Your task to perform on an android device: open chrome privacy settings Image 0: 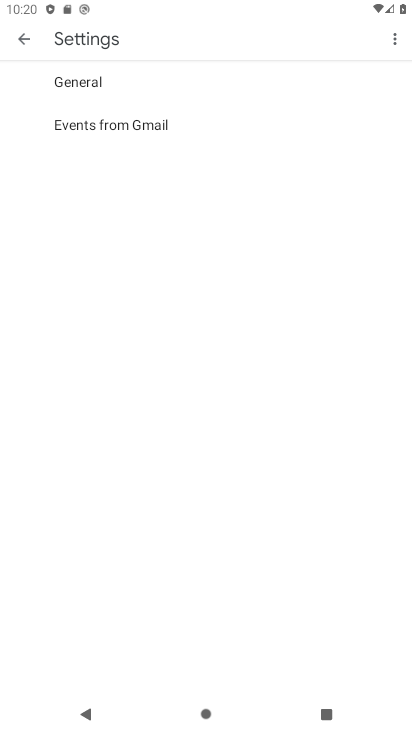
Step 0: press home button
Your task to perform on an android device: open chrome privacy settings Image 1: 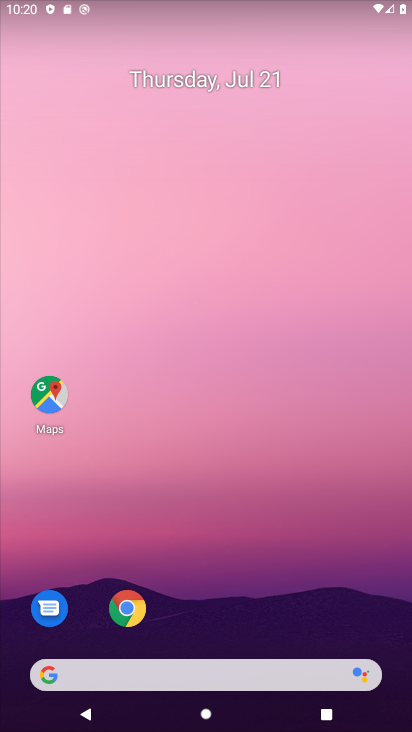
Step 1: click (141, 619)
Your task to perform on an android device: open chrome privacy settings Image 2: 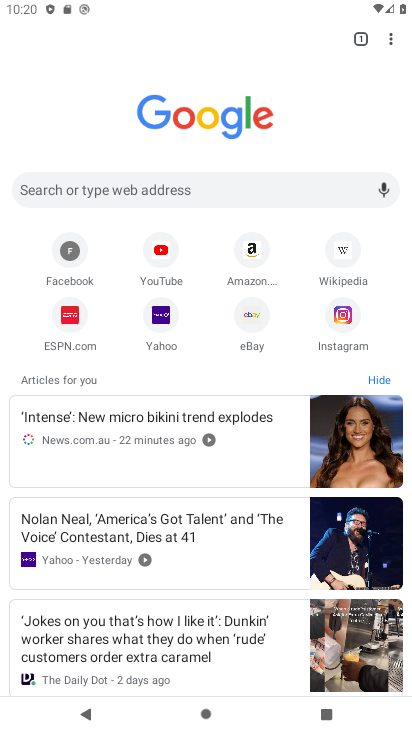
Step 2: click (382, 45)
Your task to perform on an android device: open chrome privacy settings Image 3: 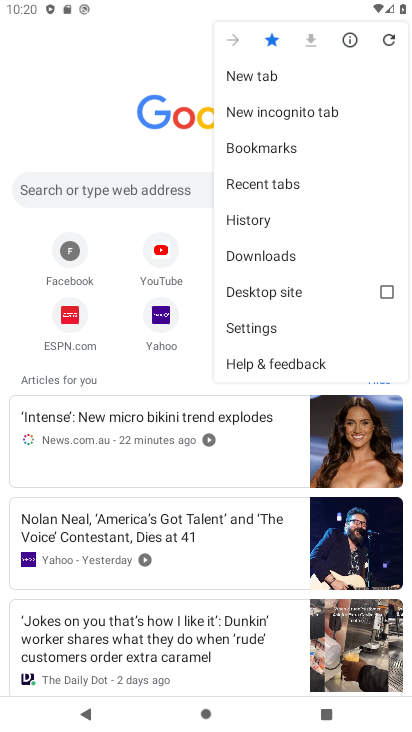
Step 3: click (268, 333)
Your task to perform on an android device: open chrome privacy settings Image 4: 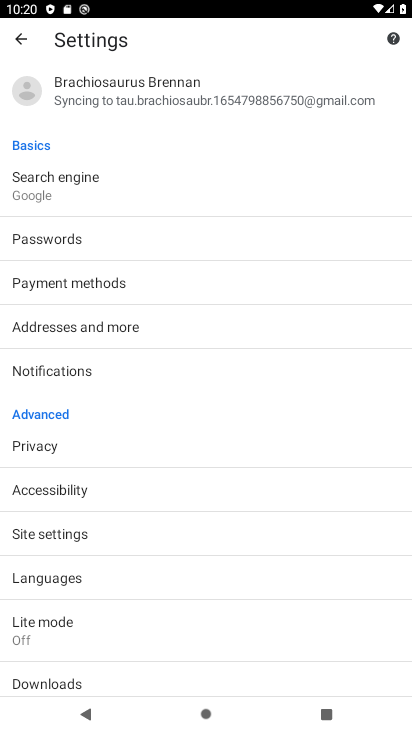
Step 4: click (66, 447)
Your task to perform on an android device: open chrome privacy settings Image 5: 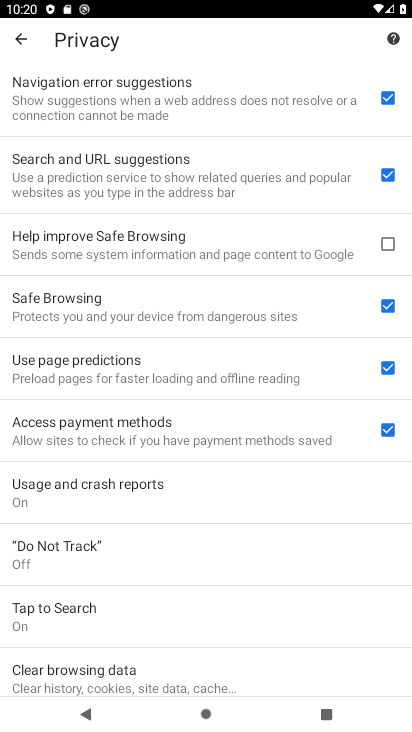
Step 5: task complete